Your task to perform on an android device: Open the phone app and click the voicemail tab. Image 0: 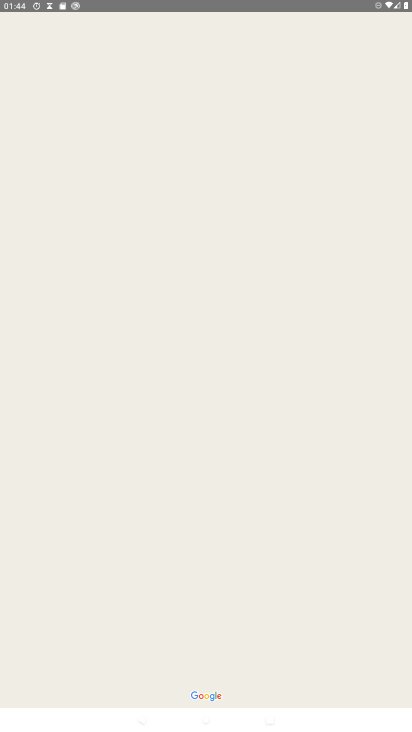
Step 0: click (293, 0)
Your task to perform on an android device: Open the phone app and click the voicemail tab. Image 1: 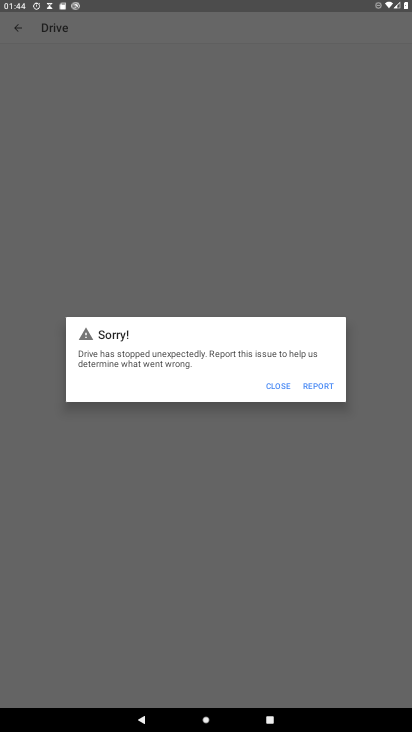
Step 1: press home button
Your task to perform on an android device: Open the phone app and click the voicemail tab. Image 2: 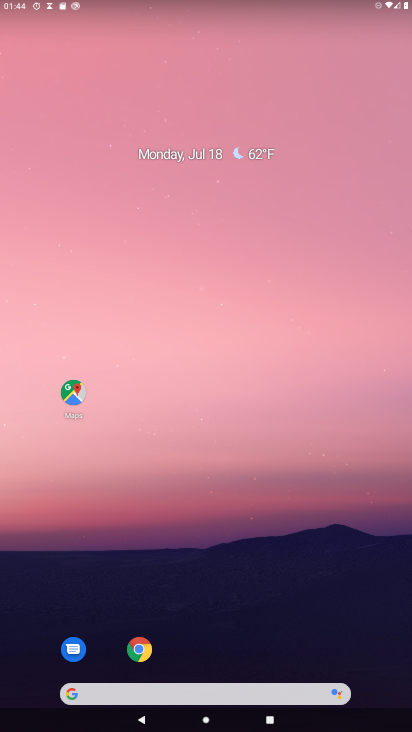
Step 2: drag from (112, 609) to (347, 308)
Your task to perform on an android device: Open the phone app and click the voicemail tab. Image 3: 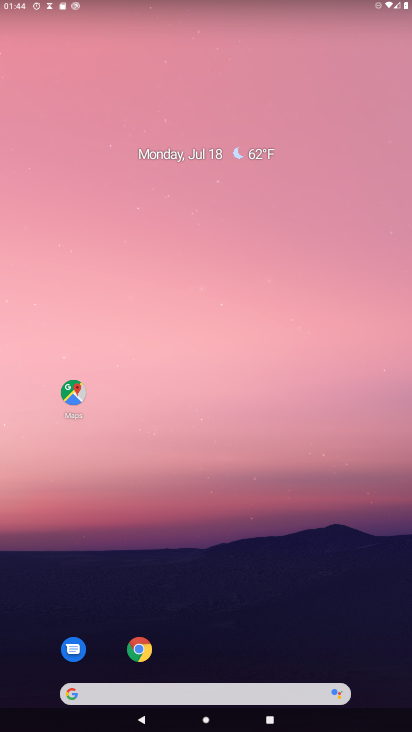
Step 3: drag from (20, 690) to (184, 150)
Your task to perform on an android device: Open the phone app and click the voicemail tab. Image 4: 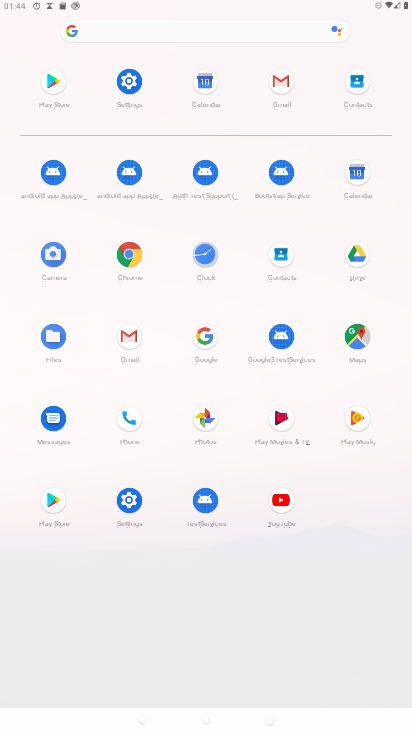
Step 4: click (116, 420)
Your task to perform on an android device: Open the phone app and click the voicemail tab. Image 5: 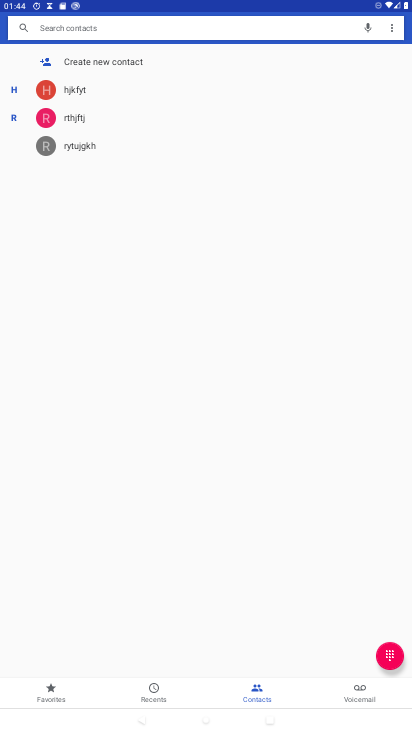
Step 5: click (352, 705)
Your task to perform on an android device: Open the phone app and click the voicemail tab. Image 6: 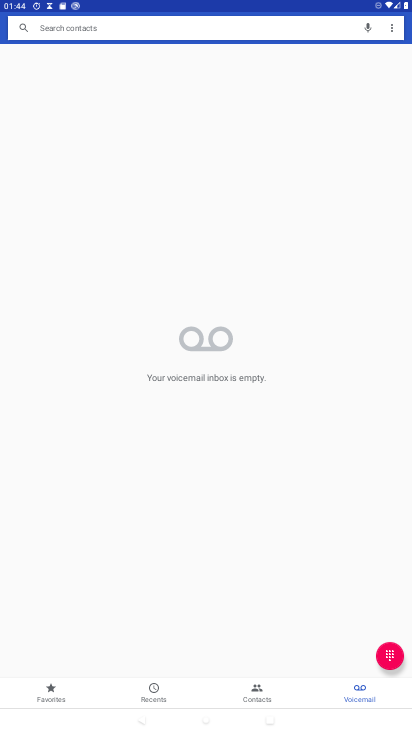
Step 6: task complete